Your task to perform on an android device: Search for Italian restaurants on Maps Image 0: 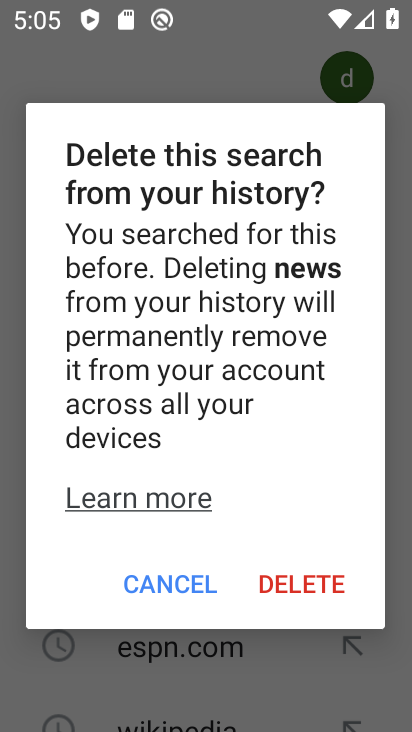
Step 0: press home button
Your task to perform on an android device: Search for Italian restaurants on Maps Image 1: 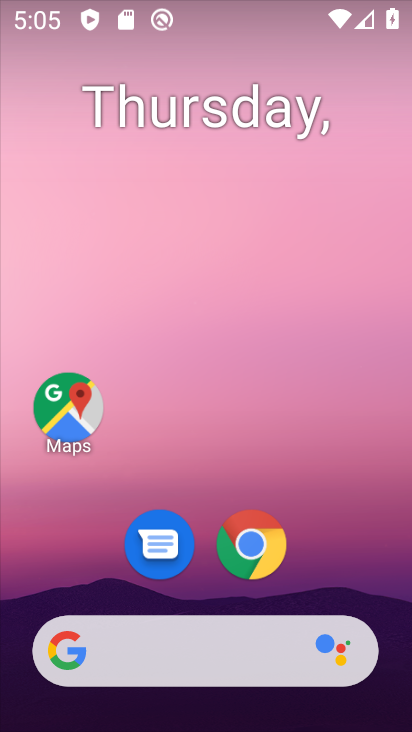
Step 1: click (86, 411)
Your task to perform on an android device: Search for Italian restaurants on Maps Image 2: 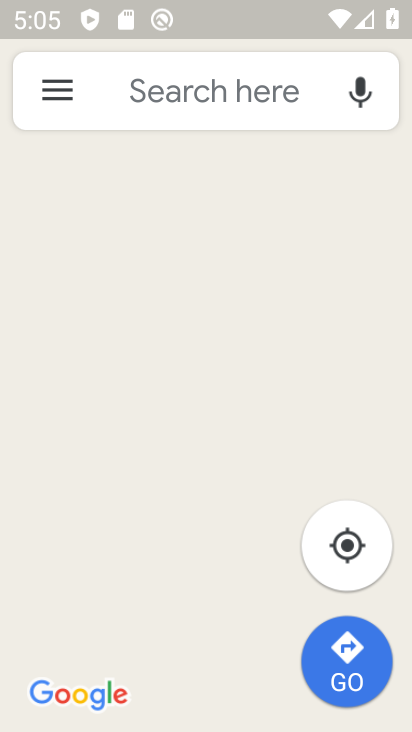
Step 2: click (276, 83)
Your task to perform on an android device: Search for Italian restaurants on Maps Image 3: 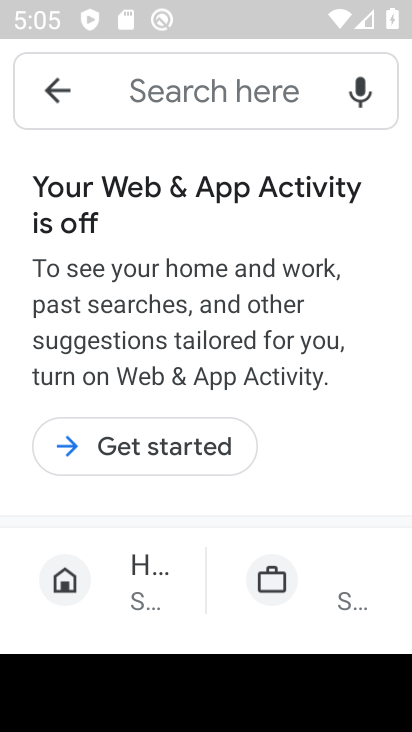
Step 3: type "Italian restaurants"
Your task to perform on an android device: Search for Italian restaurants on Maps Image 4: 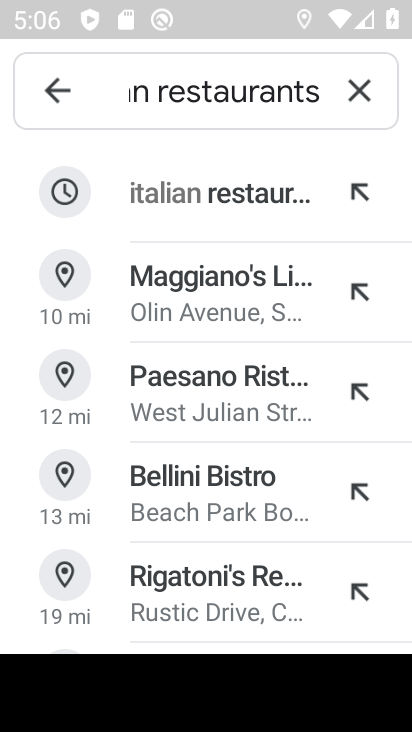
Step 4: press enter
Your task to perform on an android device: Search for Italian restaurants on Maps Image 5: 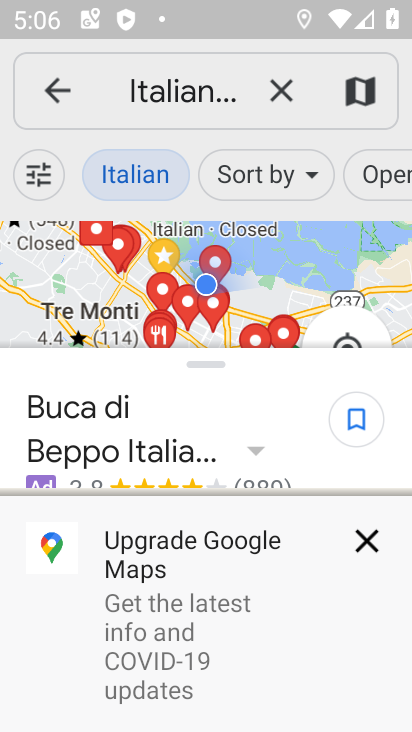
Step 5: task complete